Your task to perform on an android device: Add usb-c to the cart on target, then select checkout. Image 0: 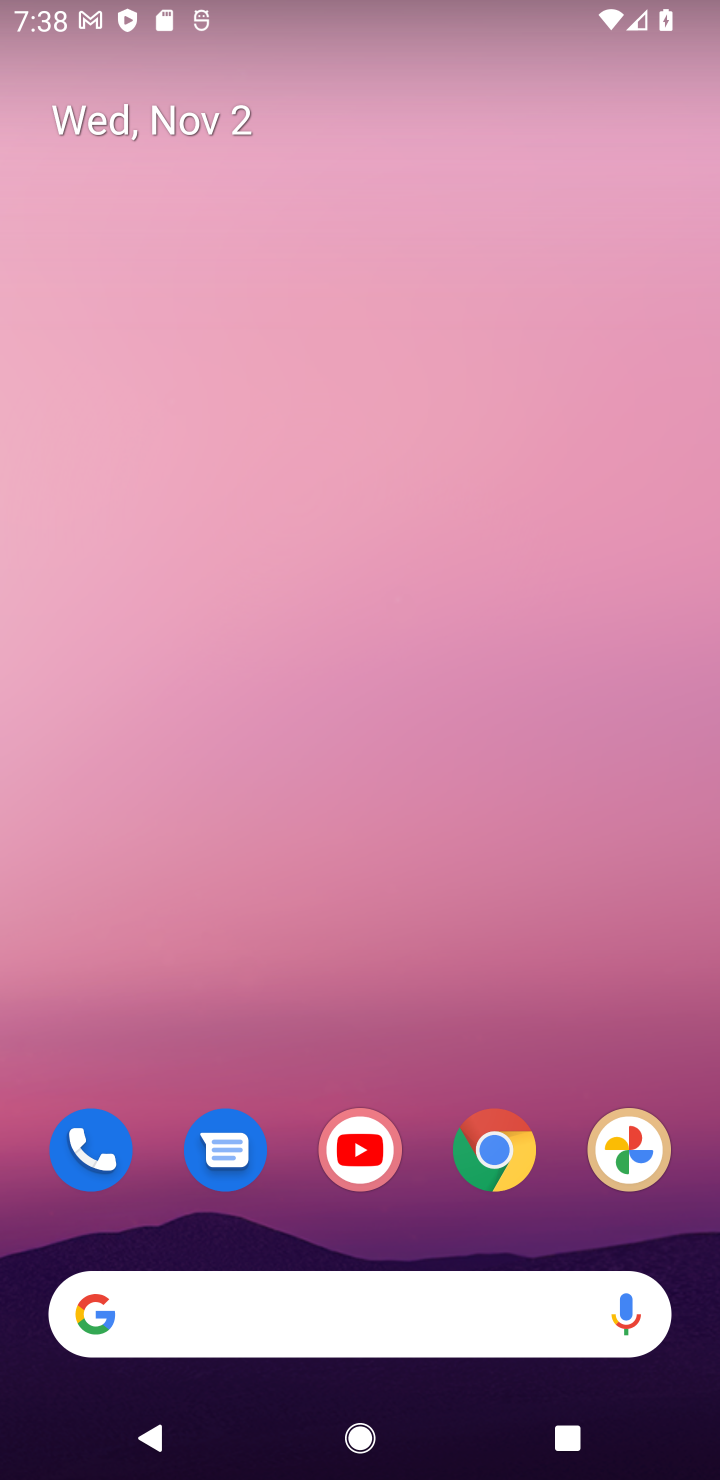
Step 0: click (503, 1154)
Your task to perform on an android device: Add usb-c to the cart on target, then select checkout. Image 1: 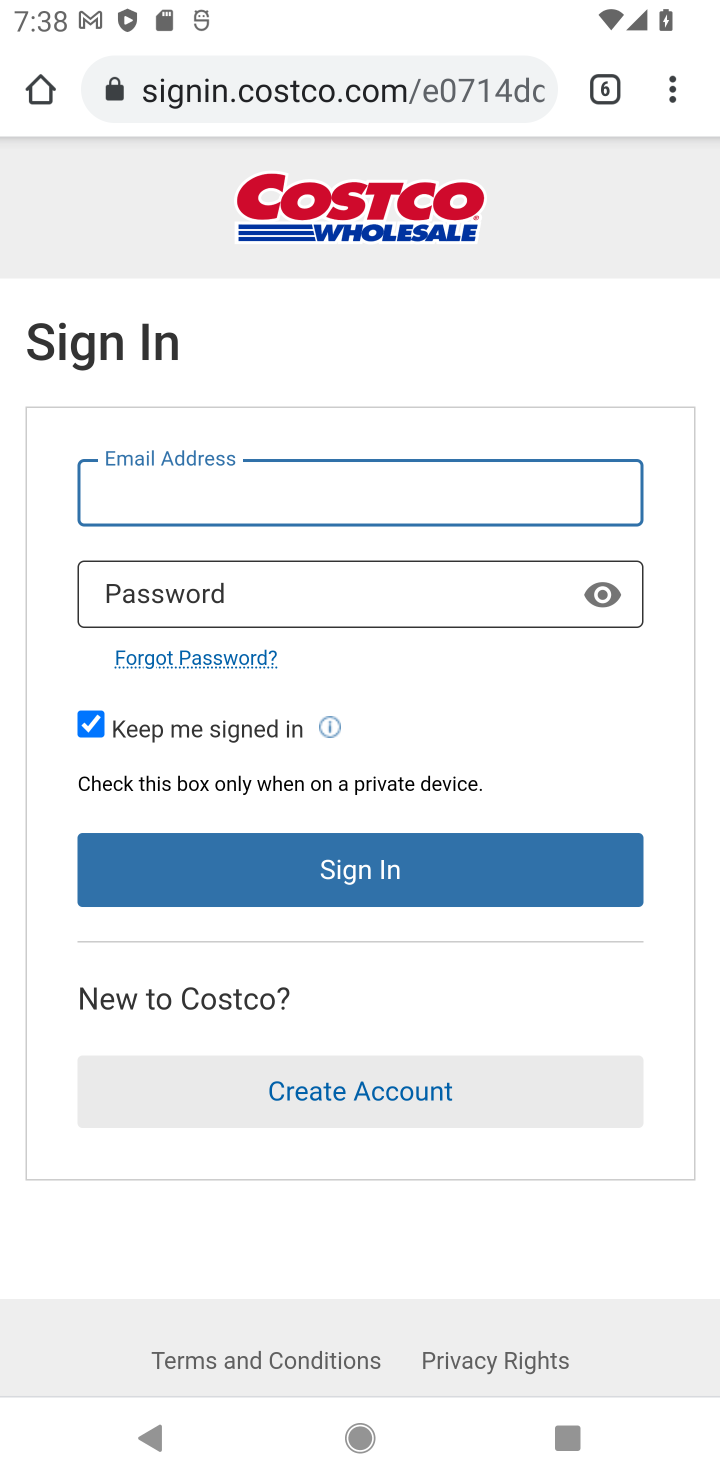
Step 1: click (606, 77)
Your task to perform on an android device: Add usb-c to the cart on target, then select checkout. Image 2: 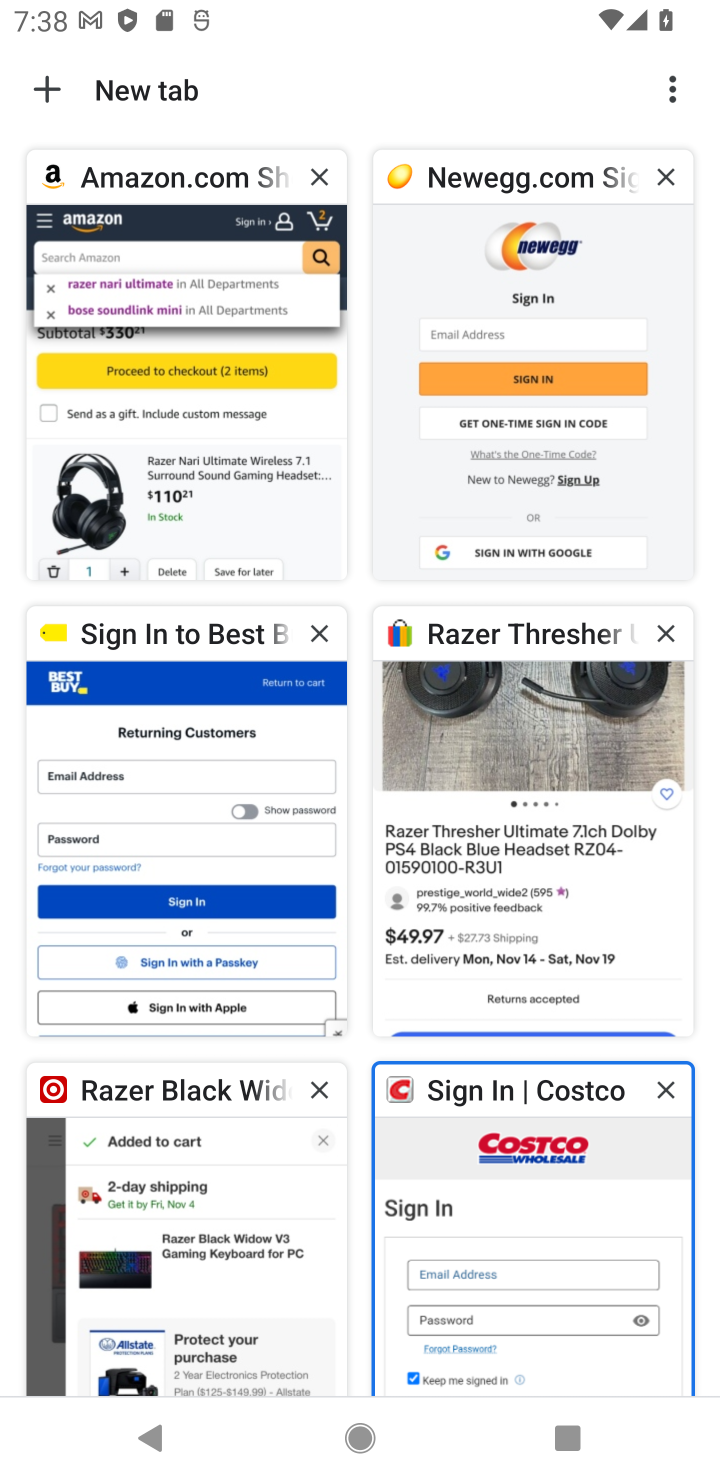
Step 2: click (190, 1150)
Your task to perform on an android device: Add usb-c to the cart on target, then select checkout. Image 3: 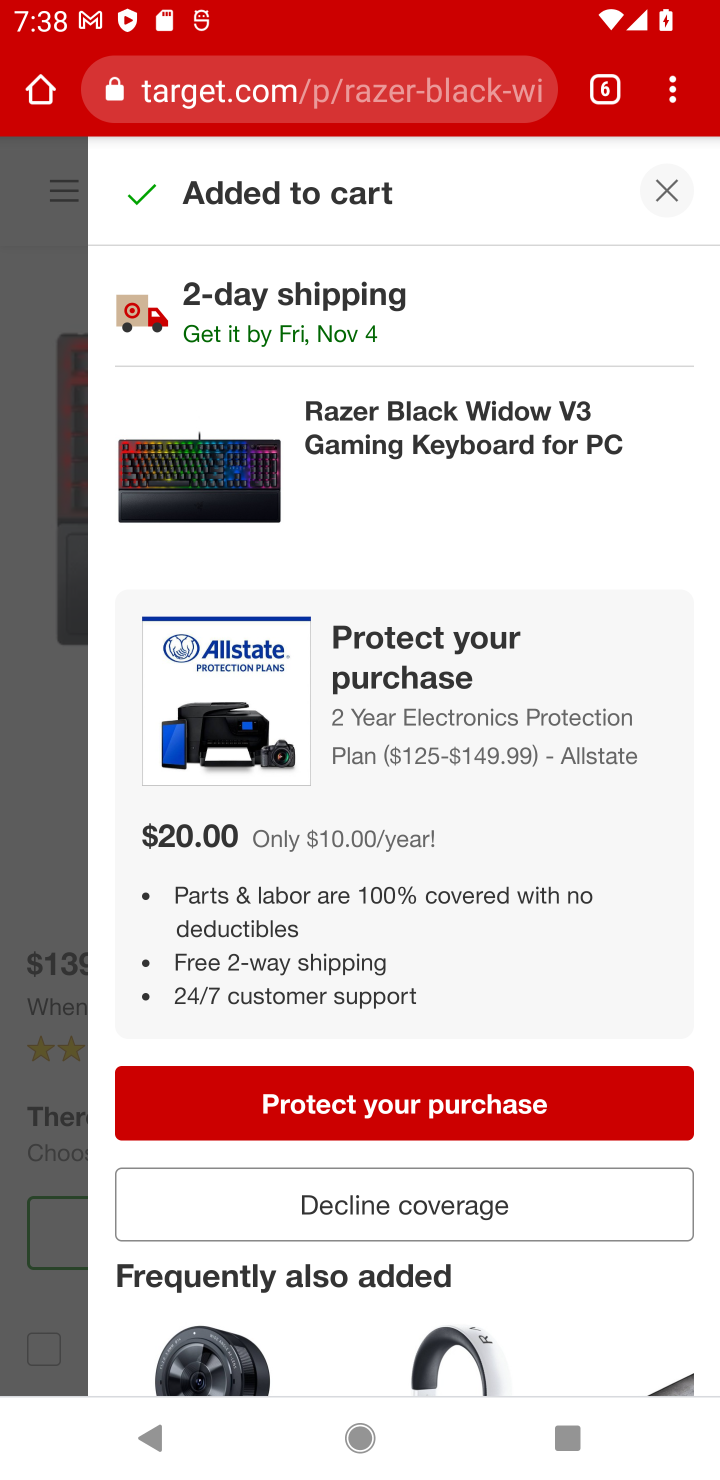
Step 3: click (674, 175)
Your task to perform on an android device: Add usb-c to the cart on target, then select checkout. Image 4: 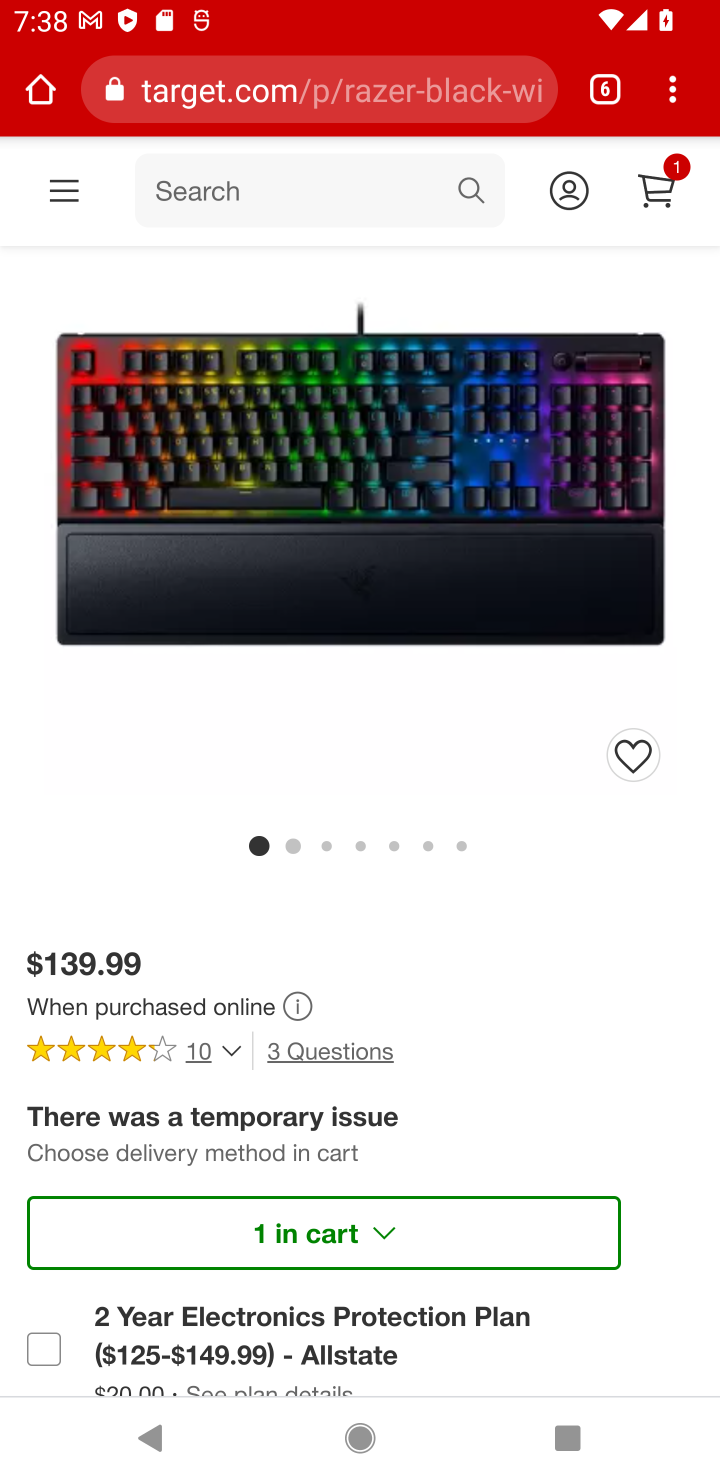
Step 4: click (349, 198)
Your task to perform on an android device: Add usb-c to the cart on target, then select checkout. Image 5: 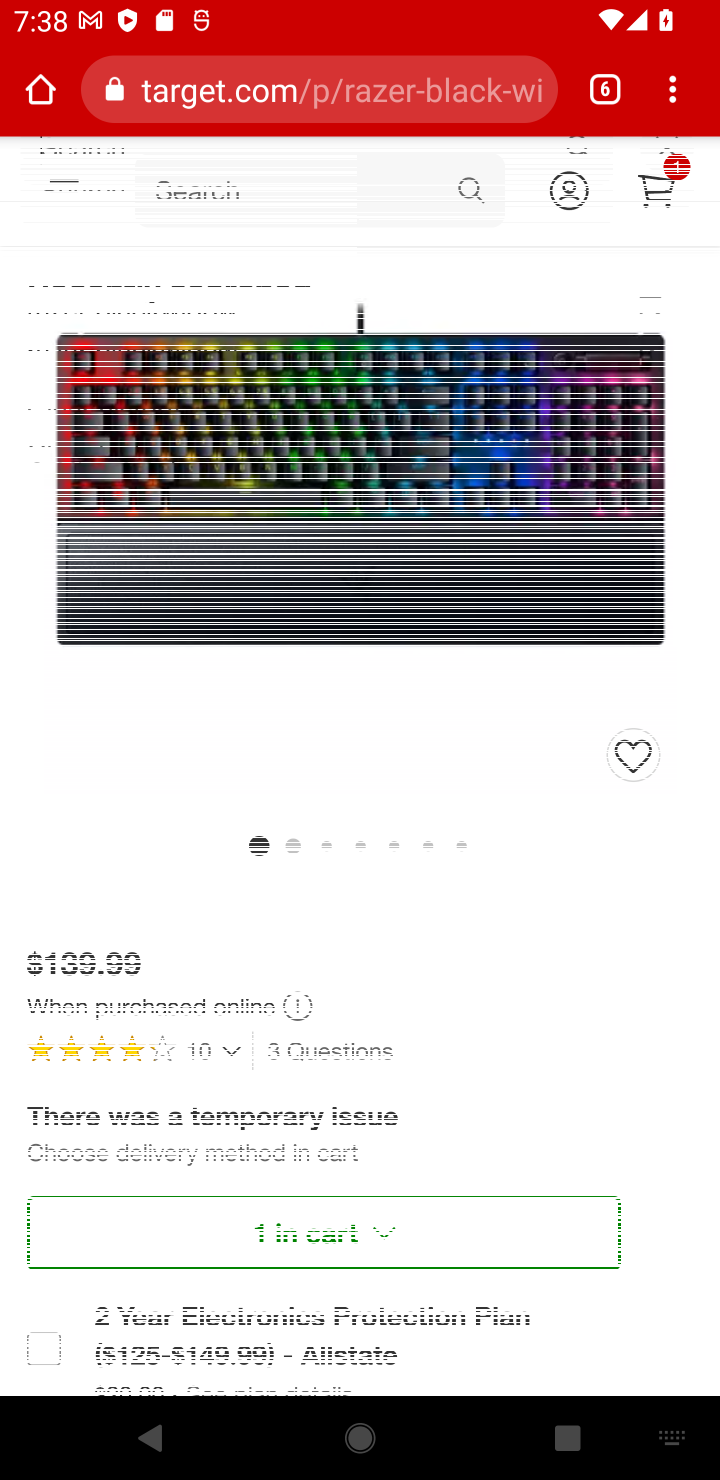
Step 5: type "usb-c"
Your task to perform on an android device: Add usb-c to the cart on target, then select checkout. Image 6: 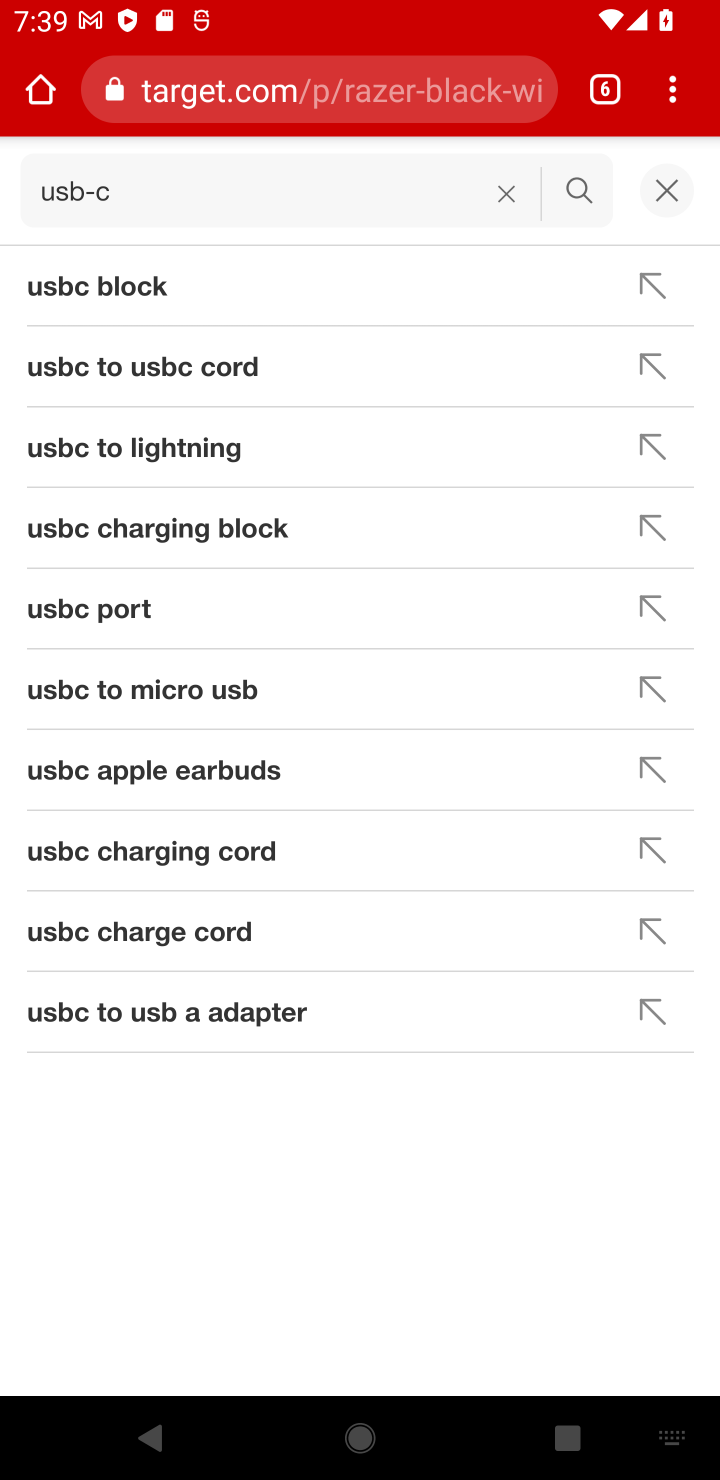
Step 6: click (588, 196)
Your task to perform on an android device: Add usb-c to the cart on target, then select checkout. Image 7: 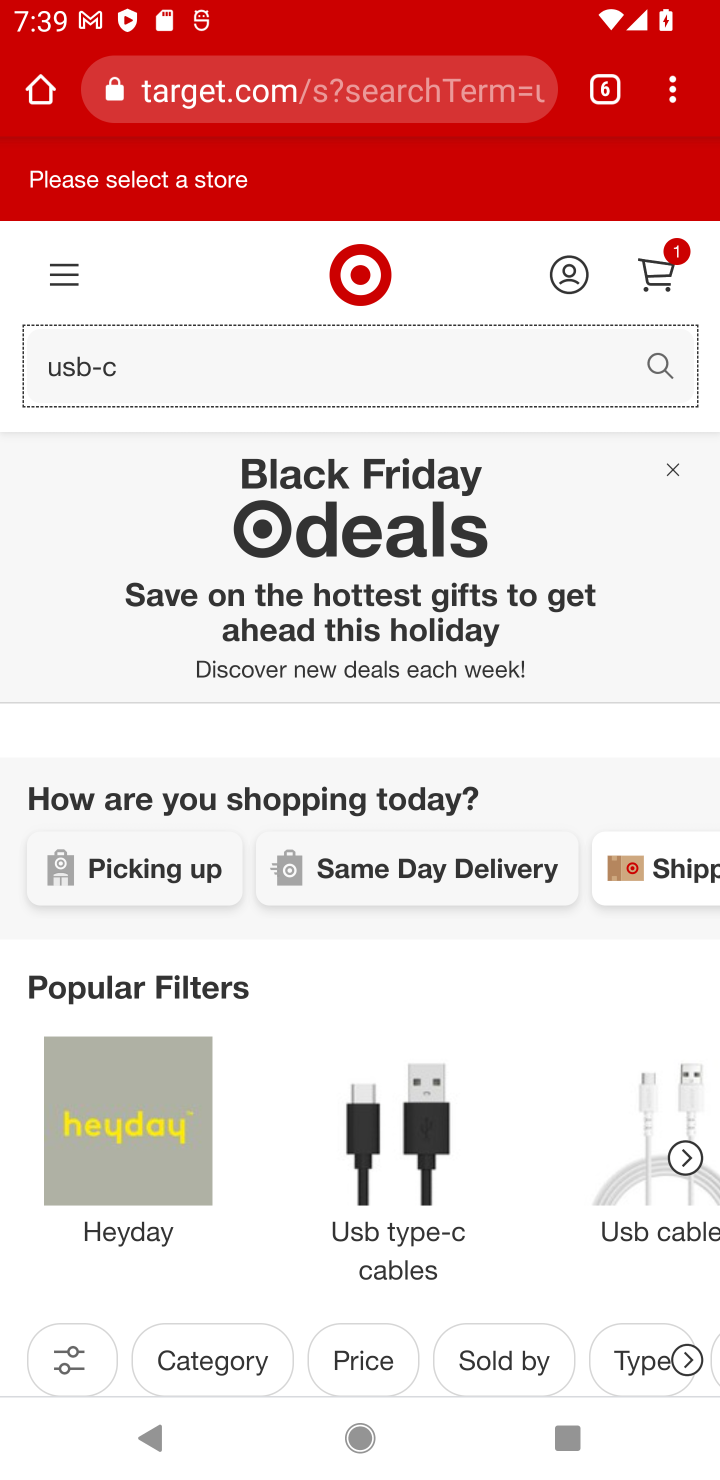
Step 7: drag from (232, 1267) to (277, 267)
Your task to perform on an android device: Add usb-c to the cart on target, then select checkout. Image 8: 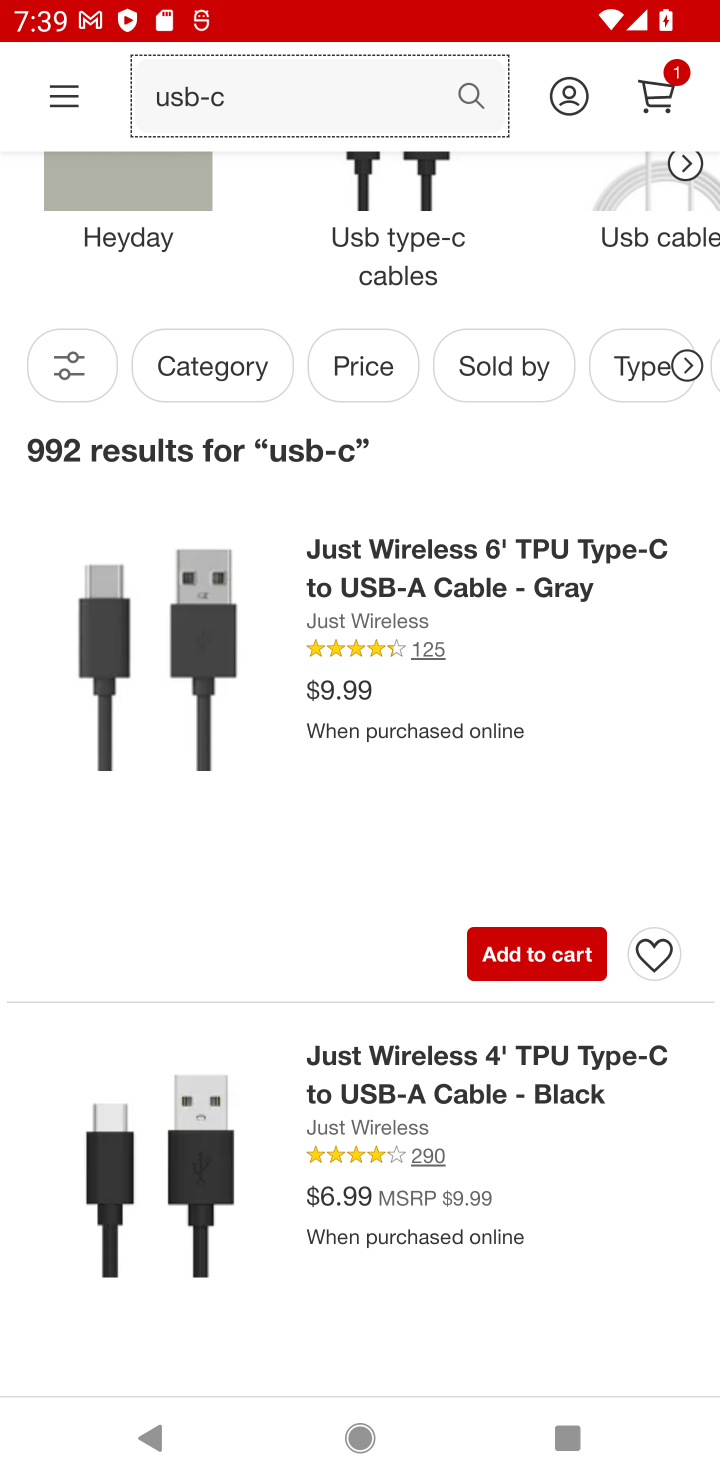
Step 8: click (519, 955)
Your task to perform on an android device: Add usb-c to the cart on target, then select checkout. Image 9: 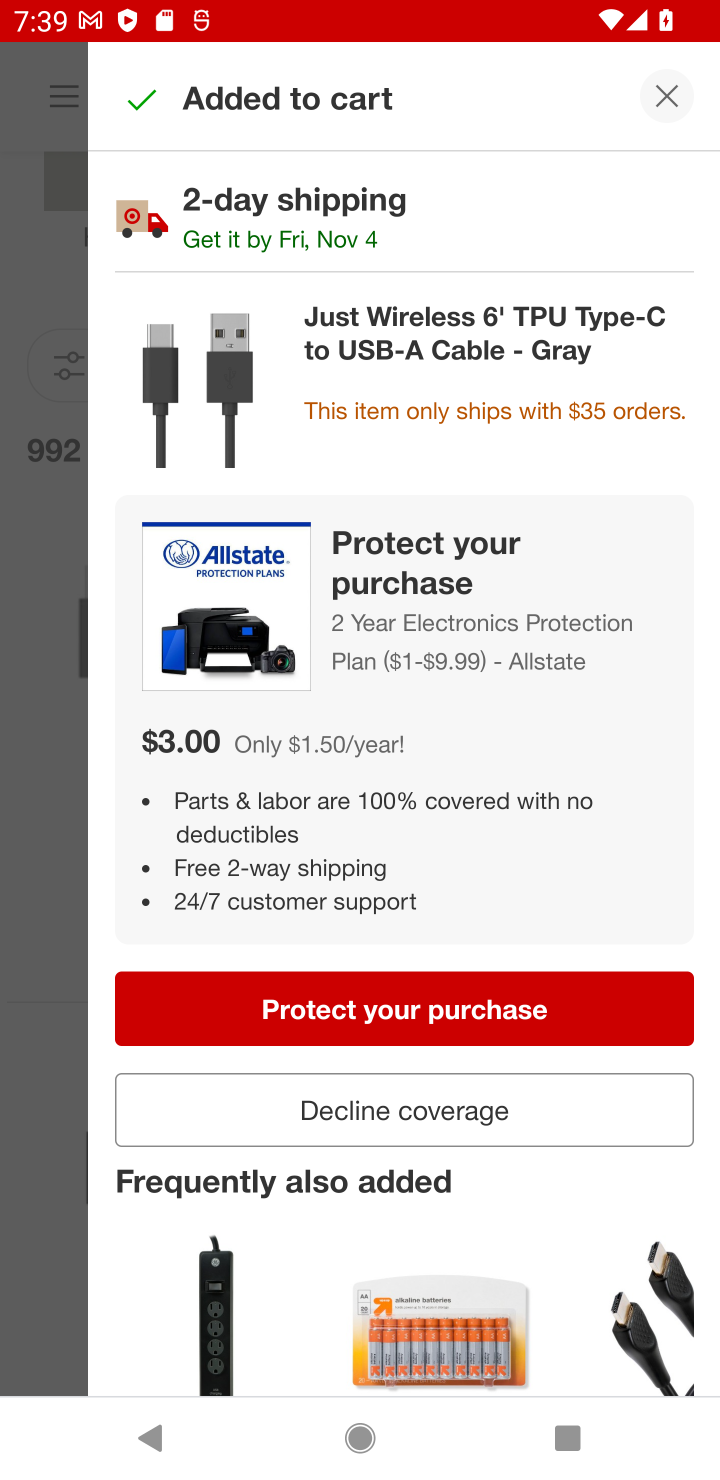
Step 9: click (433, 1096)
Your task to perform on an android device: Add usb-c to the cart on target, then select checkout. Image 10: 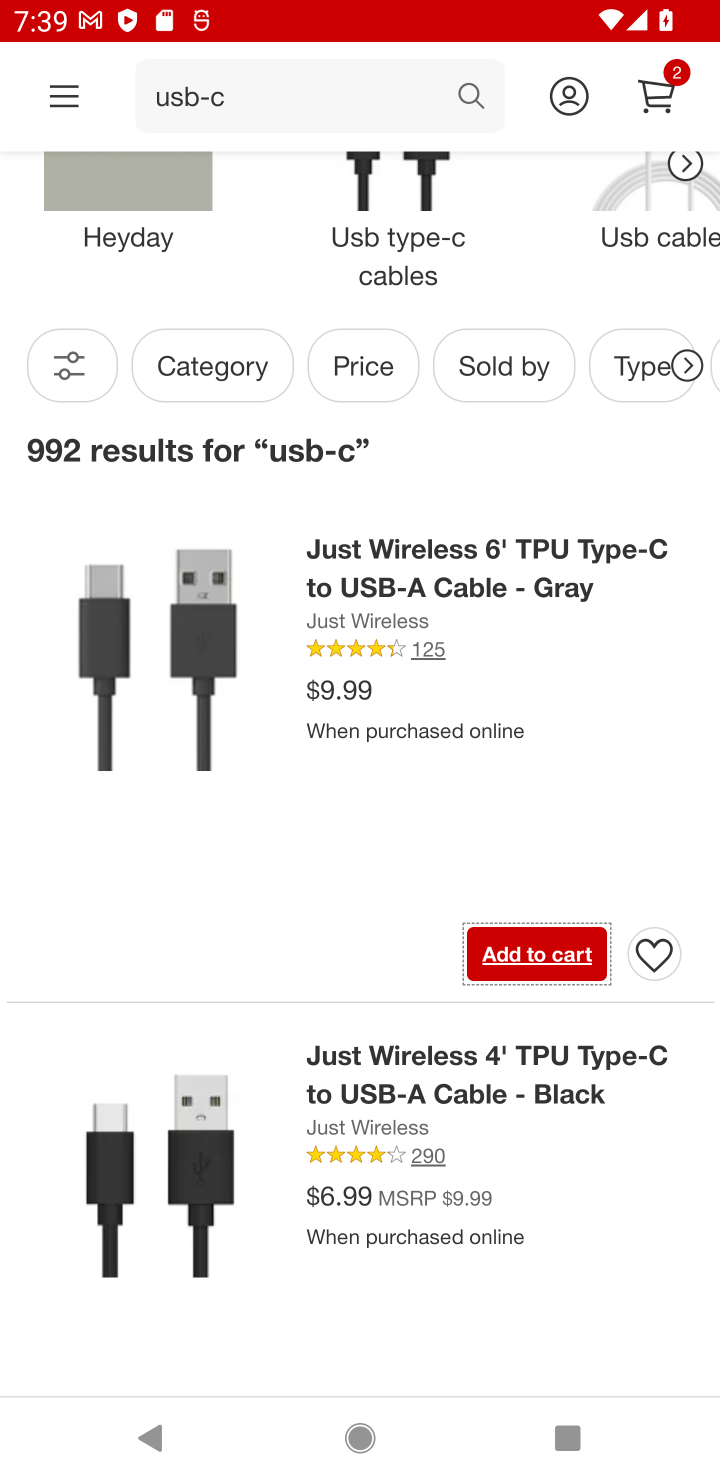
Step 10: click (660, 80)
Your task to perform on an android device: Add usb-c to the cart on target, then select checkout. Image 11: 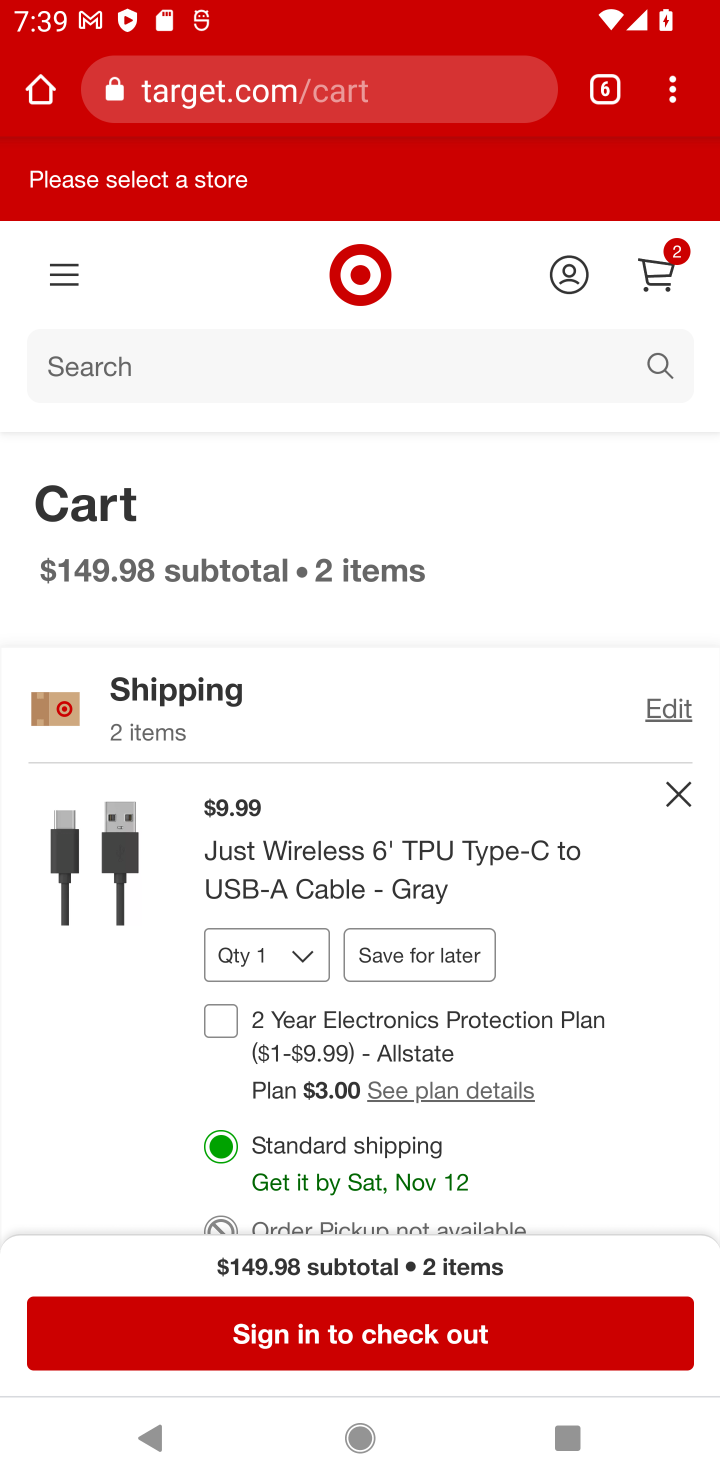
Step 11: task complete